Your task to perform on an android device: Open privacy settings Image 0: 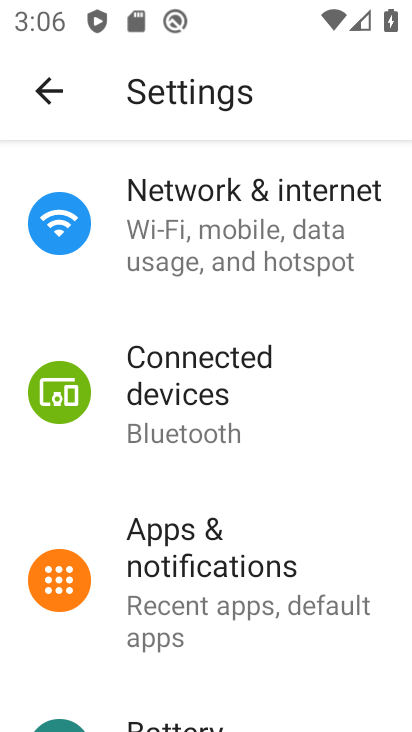
Step 0: drag from (224, 509) to (268, 59)
Your task to perform on an android device: Open privacy settings Image 1: 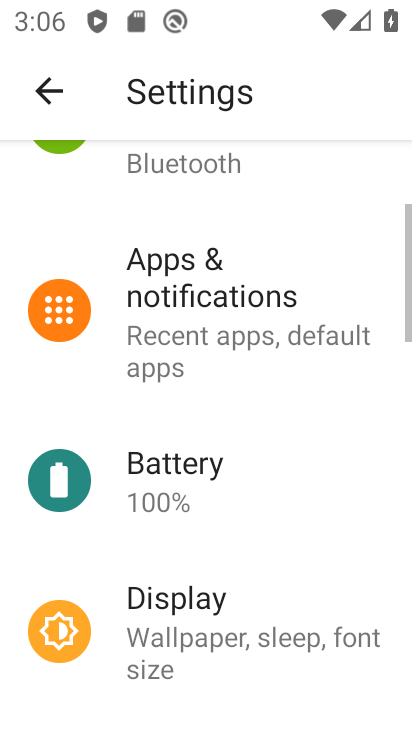
Step 1: drag from (186, 503) to (232, 93)
Your task to perform on an android device: Open privacy settings Image 2: 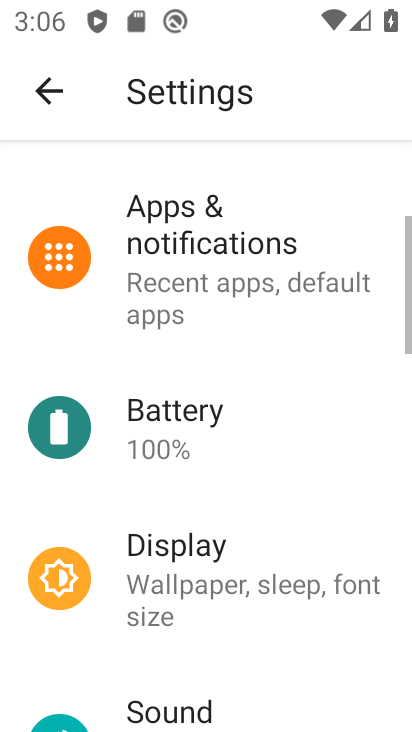
Step 2: drag from (181, 624) to (296, 8)
Your task to perform on an android device: Open privacy settings Image 3: 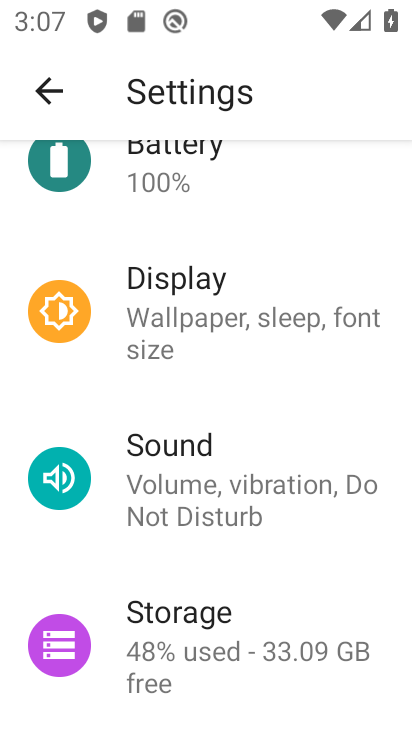
Step 3: drag from (169, 644) to (264, 11)
Your task to perform on an android device: Open privacy settings Image 4: 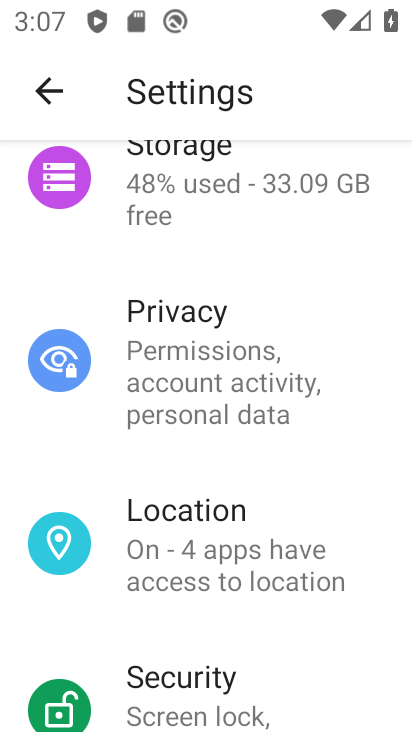
Step 4: click (206, 364)
Your task to perform on an android device: Open privacy settings Image 5: 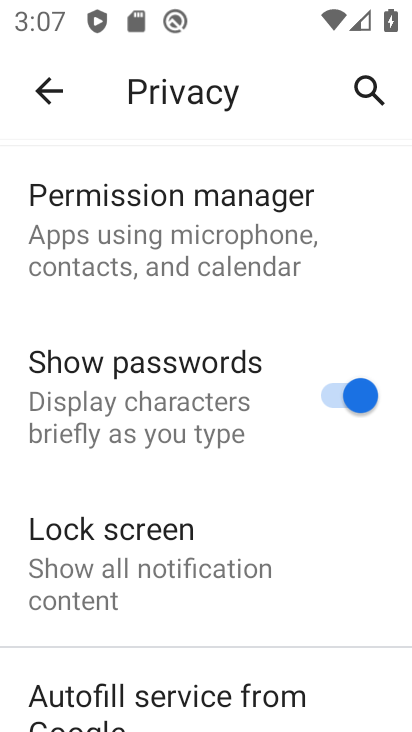
Step 5: task complete